Your task to perform on an android device: open wifi settings Image 0: 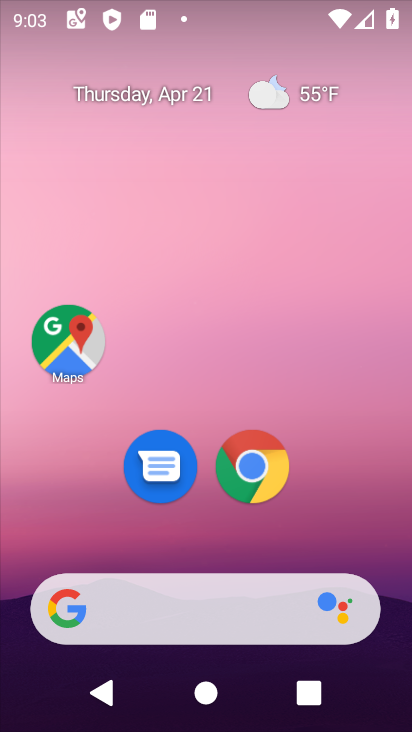
Step 0: drag from (307, 511) to (260, 140)
Your task to perform on an android device: open wifi settings Image 1: 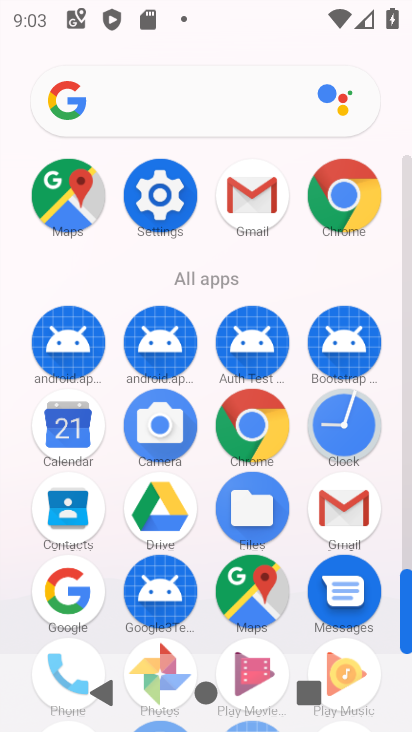
Step 1: click (170, 199)
Your task to perform on an android device: open wifi settings Image 2: 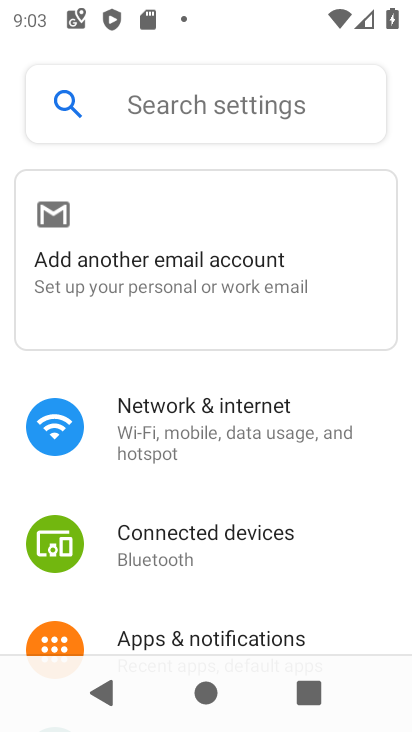
Step 2: click (163, 424)
Your task to perform on an android device: open wifi settings Image 3: 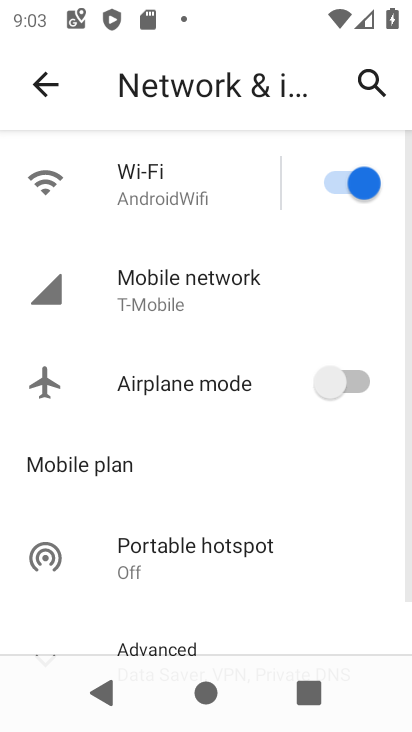
Step 3: click (155, 188)
Your task to perform on an android device: open wifi settings Image 4: 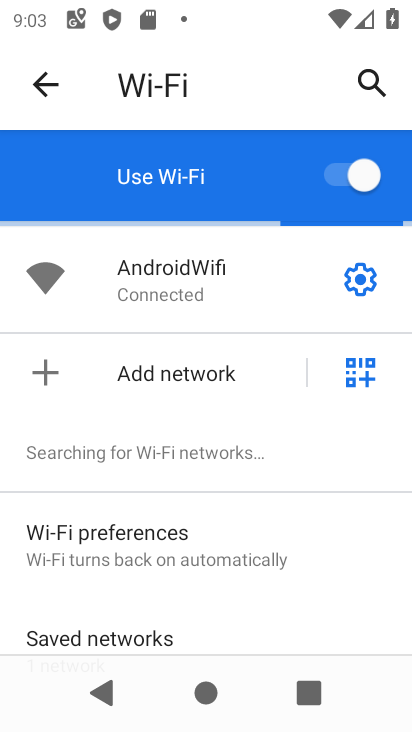
Step 4: task complete